Your task to perform on an android device: delete browsing data in the chrome app Image 0: 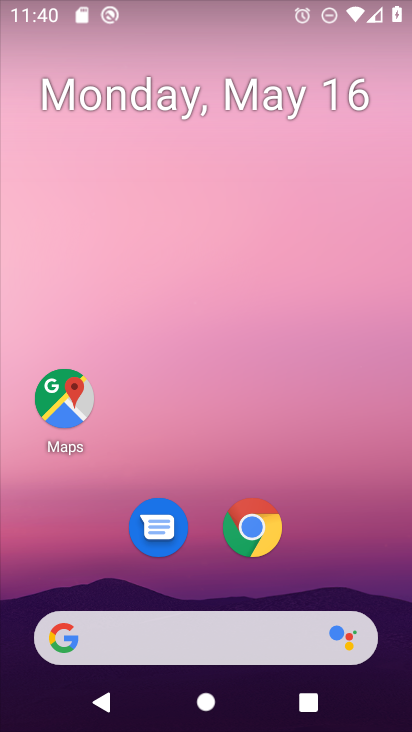
Step 0: click (264, 528)
Your task to perform on an android device: delete browsing data in the chrome app Image 1: 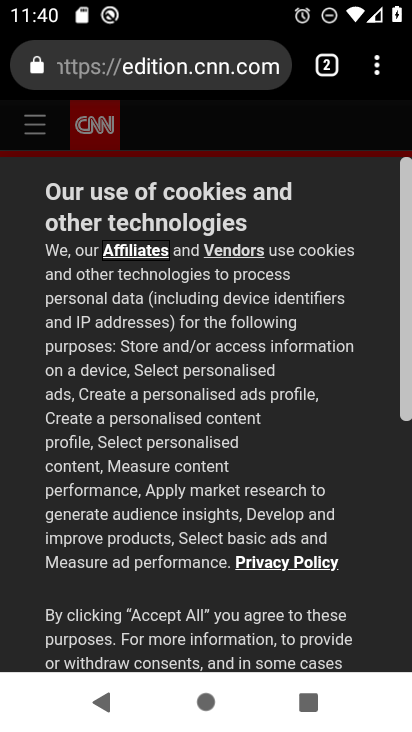
Step 1: click (378, 70)
Your task to perform on an android device: delete browsing data in the chrome app Image 2: 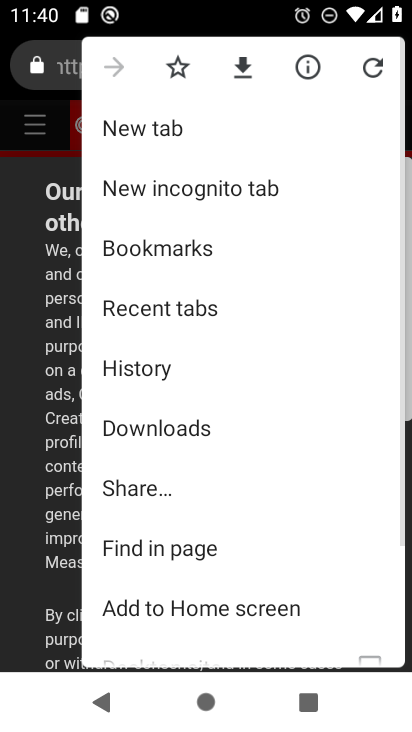
Step 2: drag from (223, 576) to (206, 170)
Your task to perform on an android device: delete browsing data in the chrome app Image 3: 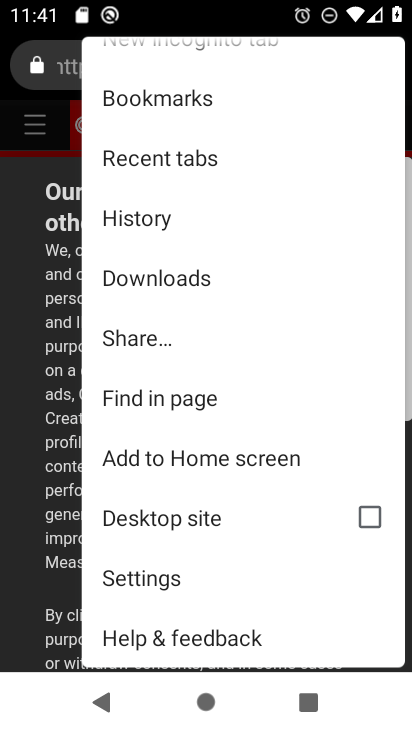
Step 3: click (151, 583)
Your task to perform on an android device: delete browsing data in the chrome app Image 4: 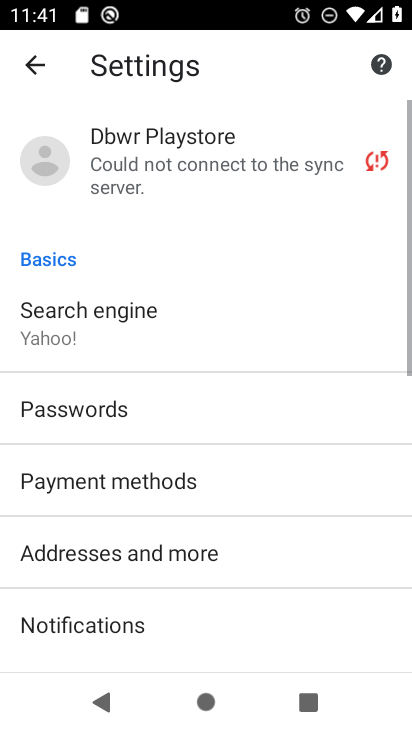
Step 4: drag from (146, 425) to (138, 138)
Your task to perform on an android device: delete browsing data in the chrome app Image 5: 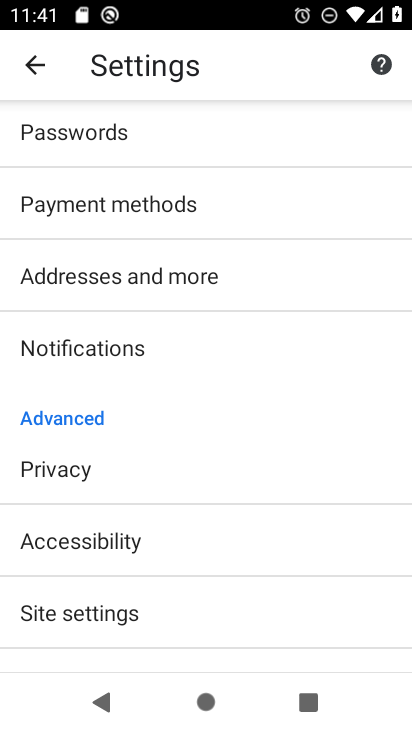
Step 5: click (72, 476)
Your task to perform on an android device: delete browsing data in the chrome app Image 6: 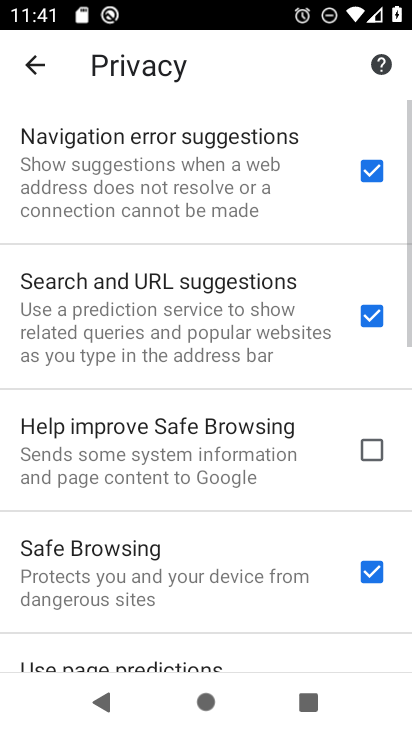
Step 6: drag from (141, 562) to (141, 34)
Your task to perform on an android device: delete browsing data in the chrome app Image 7: 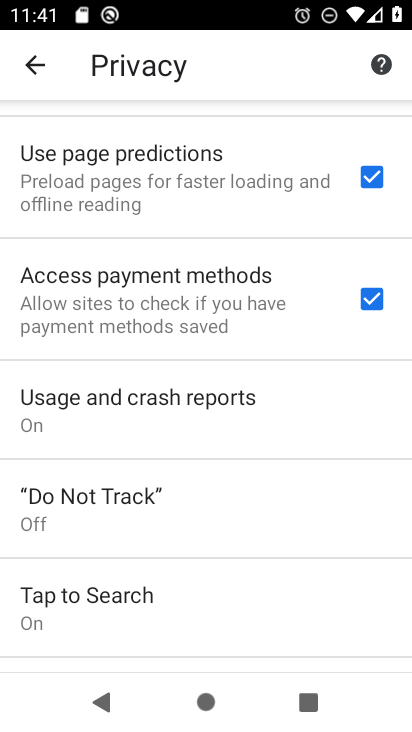
Step 7: drag from (120, 562) to (139, 154)
Your task to perform on an android device: delete browsing data in the chrome app Image 8: 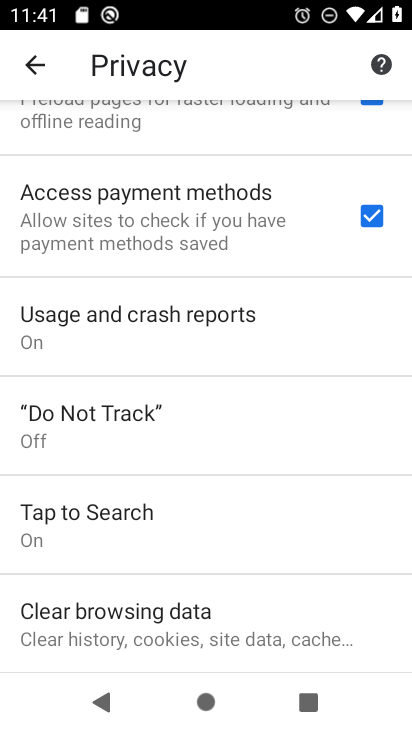
Step 8: click (87, 618)
Your task to perform on an android device: delete browsing data in the chrome app Image 9: 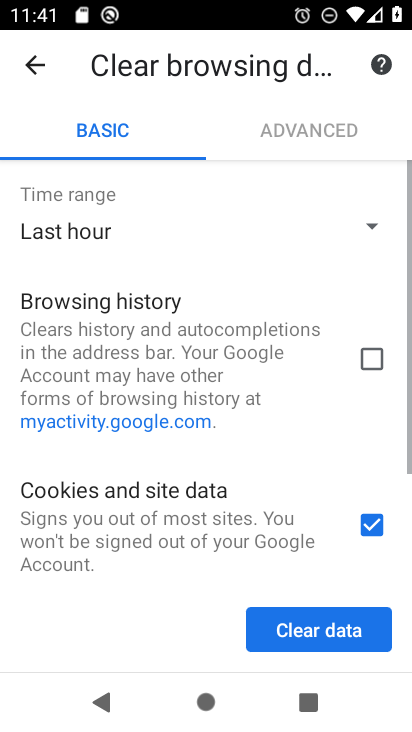
Step 9: click (354, 349)
Your task to perform on an android device: delete browsing data in the chrome app Image 10: 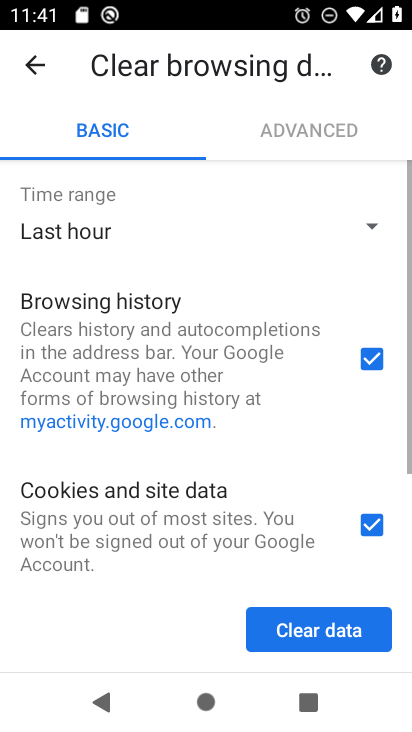
Step 10: click (369, 532)
Your task to perform on an android device: delete browsing data in the chrome app Image 11: 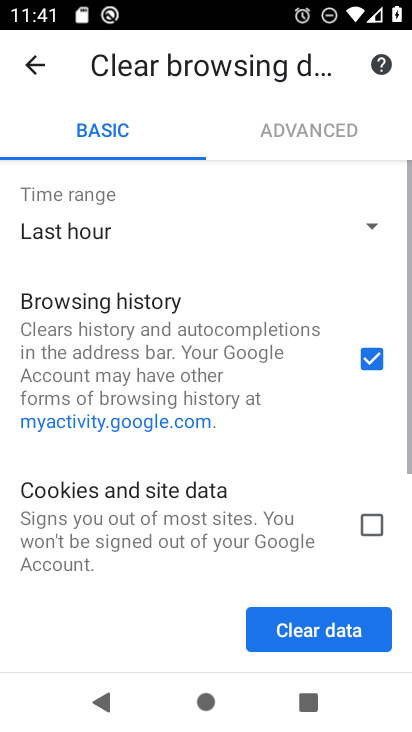
Step 11: drag from (163, 546) to (177, 191)
Your task to perform on an android device: delete browsing data in the chrome app Image 12: 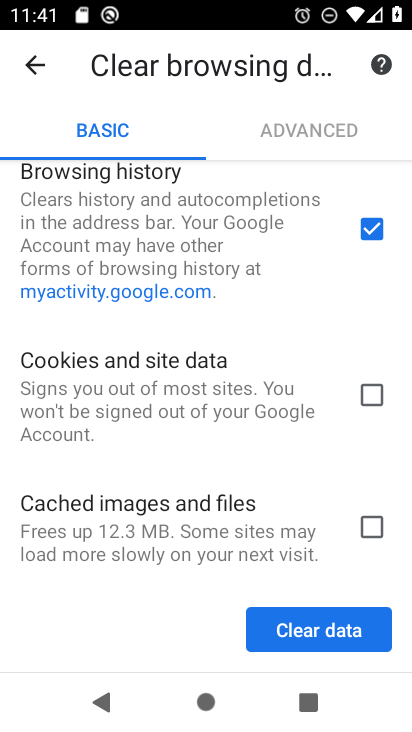
Step 12: click (348, 638)
Your task to perform on an android device: delete browsing data in the chrome app Image 13: 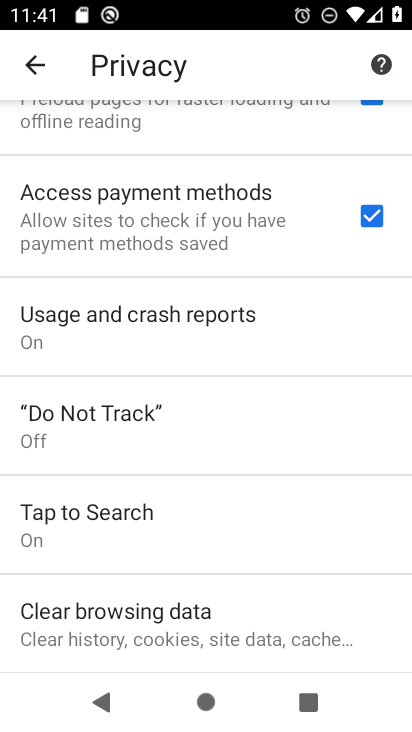
Step 13: task complete